Your task to perform on an android device: refresh tabs in the chrome app Image 0: 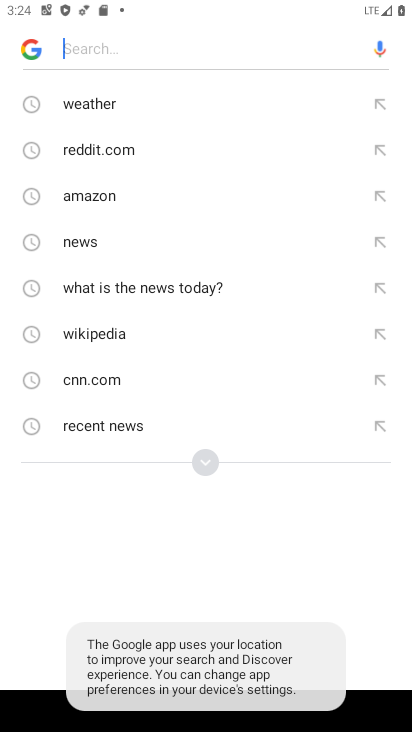
Step 0: press home button
Your task to perform on an android device: refresh tabs in the chrome app Image 1: 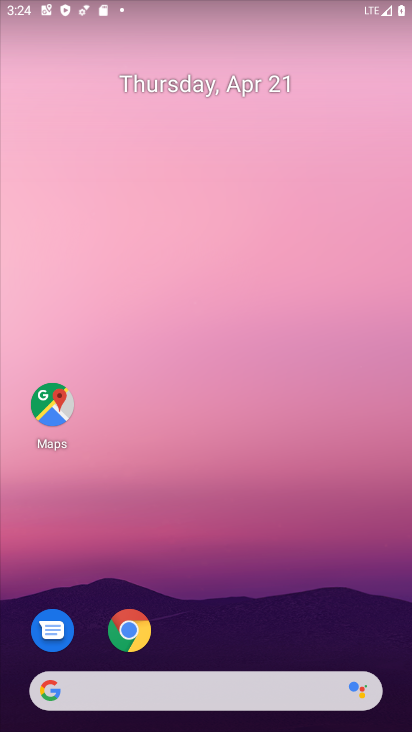
Step 1: click (129, 626)
Your task to perform on an android device: refresh tabs in the chrome app Image 2: 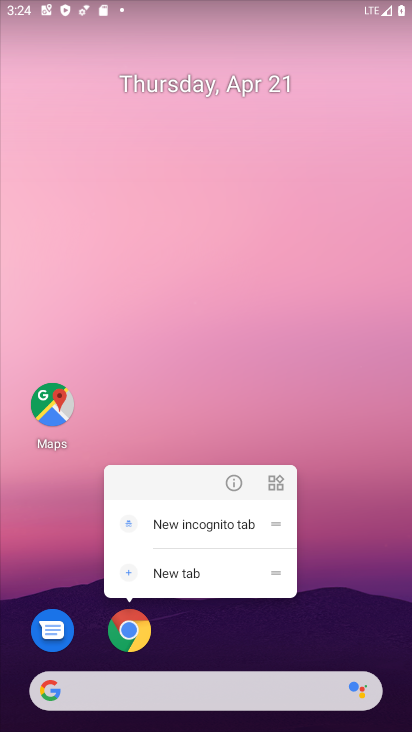
Step 2: click (129, 626)
Your task to perform on an android device: refresh tabs in the chrome app Image 3: 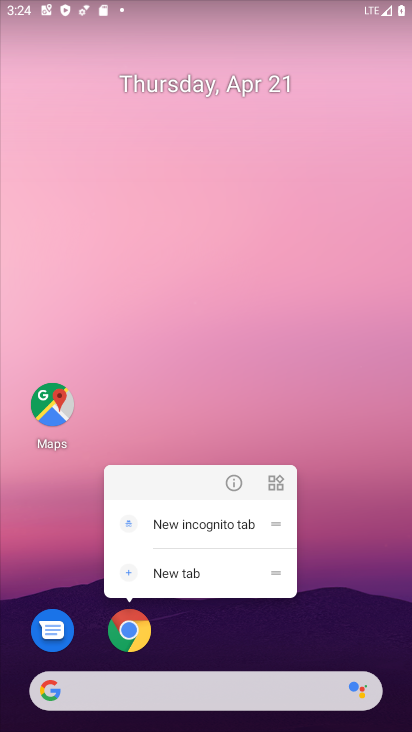
Step 3: click (131, 628)
Your task to perform on an android device: refresh tabs in the chrome app Image 4: 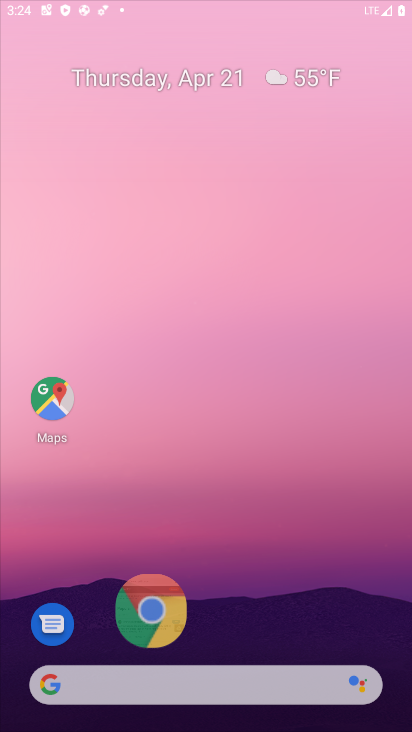
Step 4: click (131, 628)
Your task to perform on an android device: refresh tabs in the chrome app Image 5: 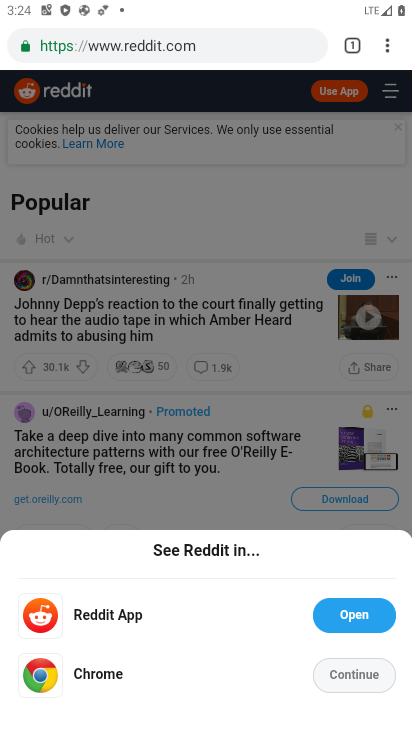
Step 5: click (393, 41)
Your task to perform on an android device: refresh tabs in the chrome app Image 6: 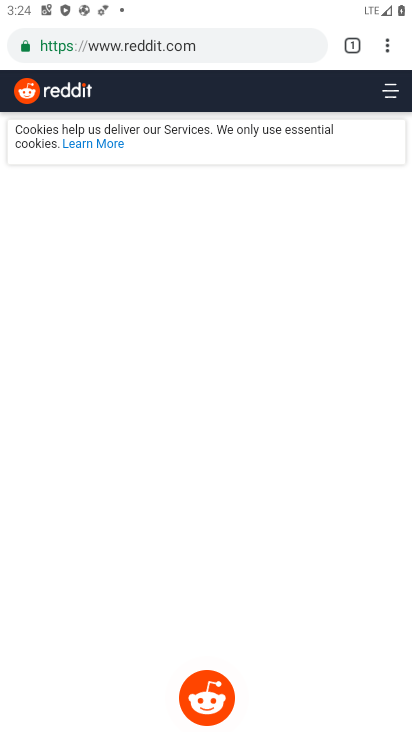
Step 6: click (387, 41)
Your task to perform on an android device: refresh tabs in the chrome app Image 7: 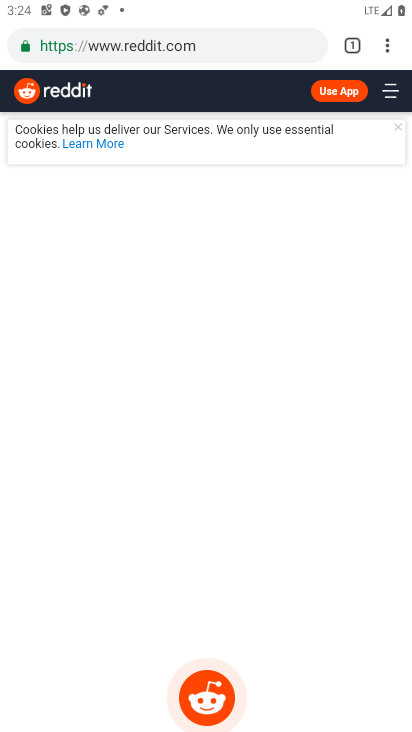
Step 7: click (385, 40)
Your task to perform on an android device: refresh tabs in the chrome app Image 8: 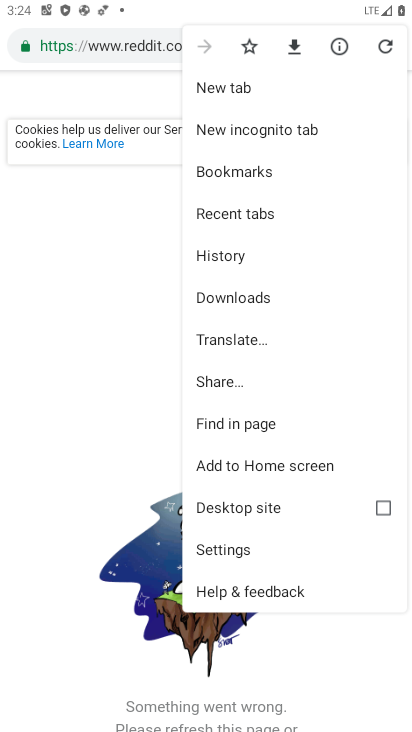
Step 8: click (379, 45)
Your task to perform on an android device: refresh tabs in the chrome app Image 9: 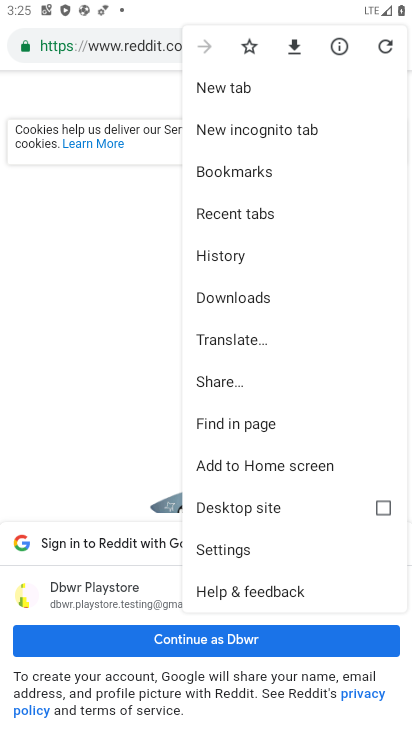
Step 9: task complete